Your task to perform on an android device: Open Wikipedia Image 0: 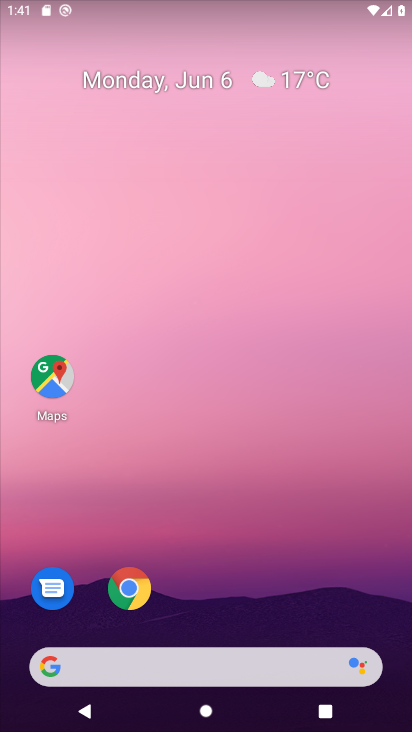
Step 0: click (114, 583)
Your task to perform on an android device: Open Wikipedia Image 1: 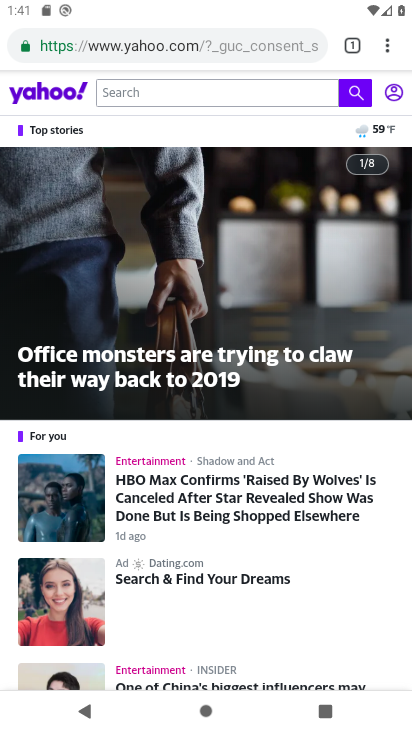
Step 1: press back button
Your task to perform on an android device: Open Wikipedia Image 2: 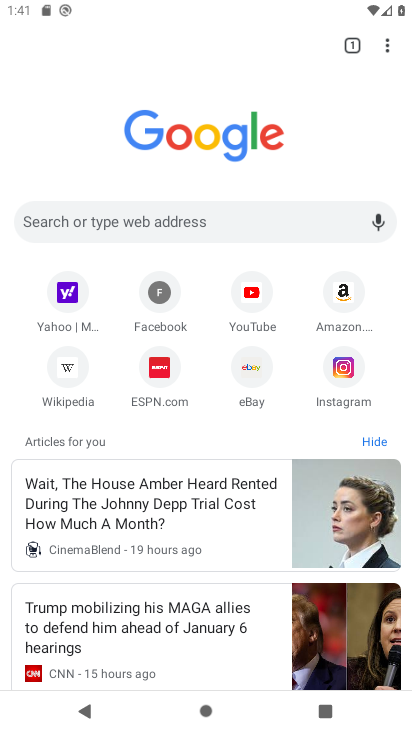
Step 2: click (61, 380)
Your task to perform on an android device: Open Wikipedia Image 3: 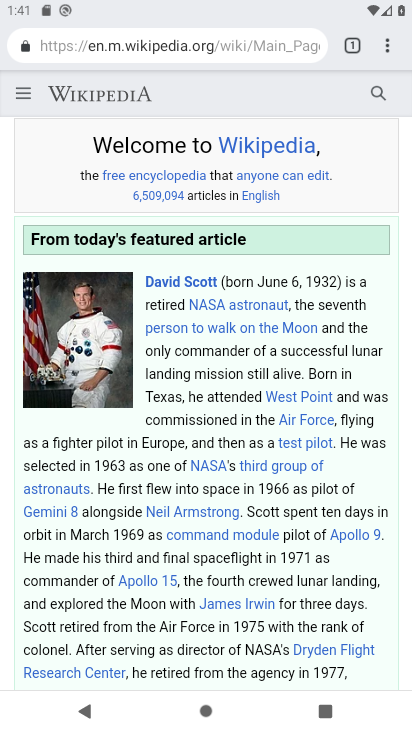
Step 3: task complete